Your task to perform on an android device: Open Google Image 0: 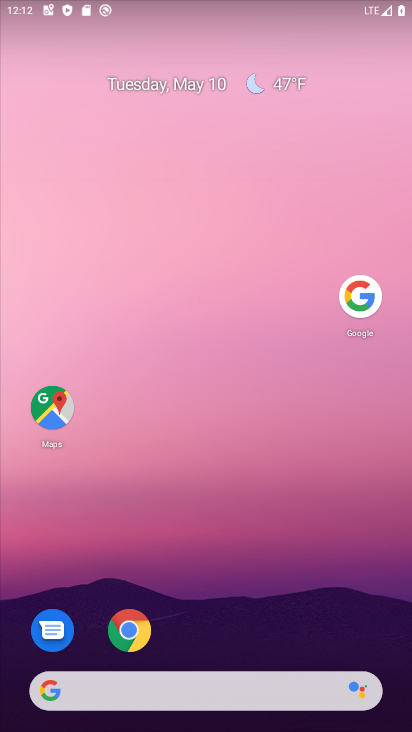
Step 0: press home button
Your task to perform on an android device: Open Google Image 1: 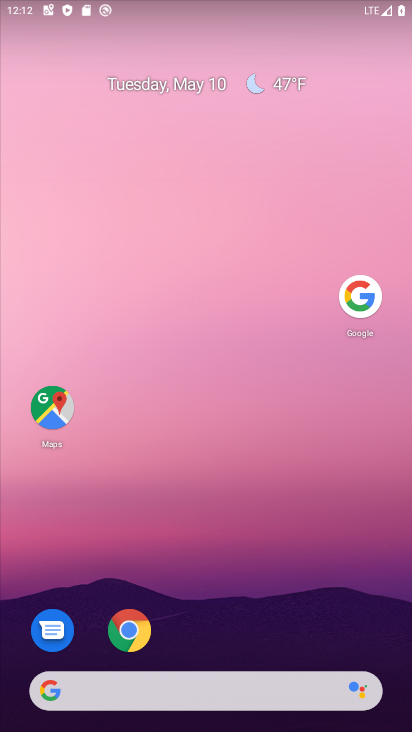
Step 1: drag from (135, 690) to (274, 57)
Your task to perform on an android device: Open Google Image 2: 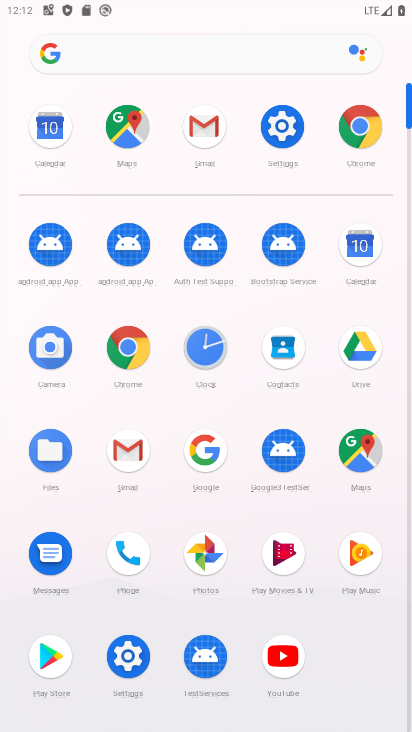
Step 2: click (213, 453)
Your task to perform on an android device: Open Google Image 3: 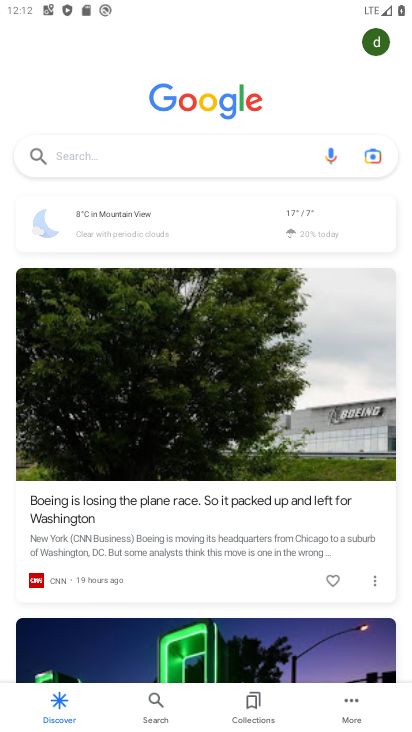
Step 3: task complete